Your task to perform on an android device: Search for a new perfume Image 0: 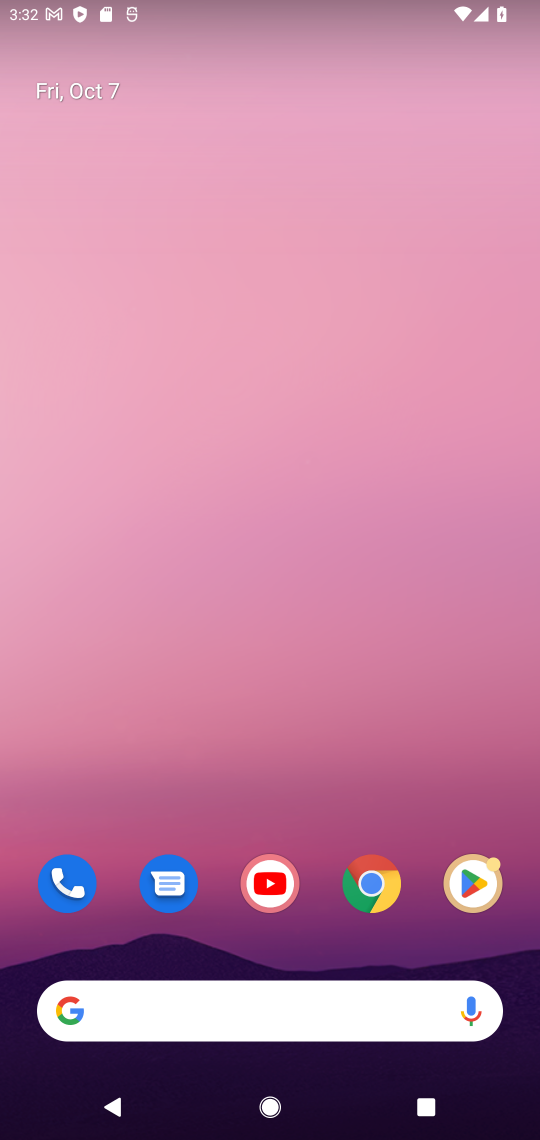
Step 0: click (371, 870)
Your task to perform on an android device: Search for a new perfume Image 1: 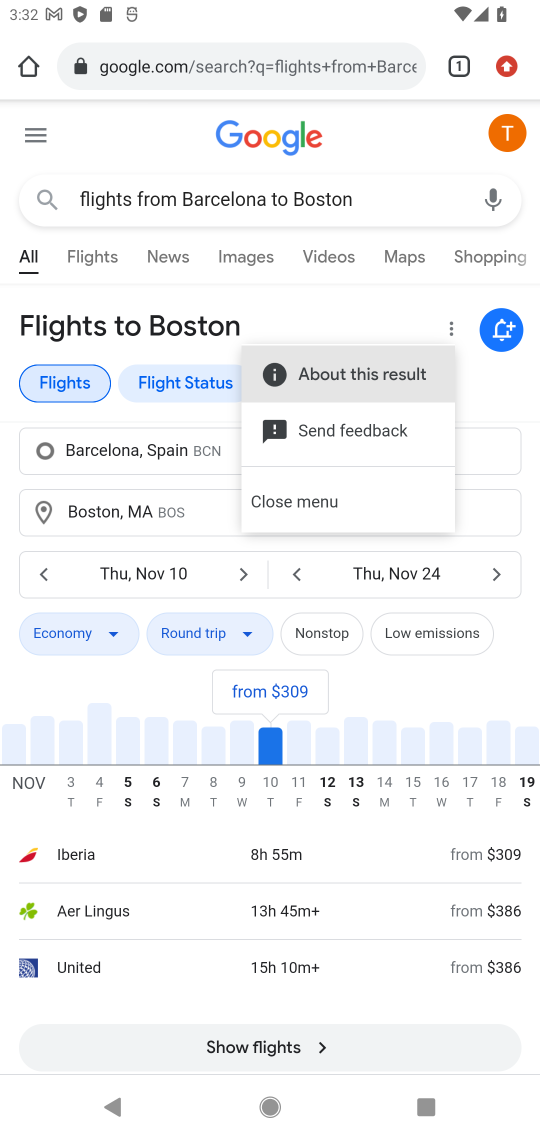
Step 1: click (378, 197)
Your task to perform on an android device: Search for a new perfume Image 2: 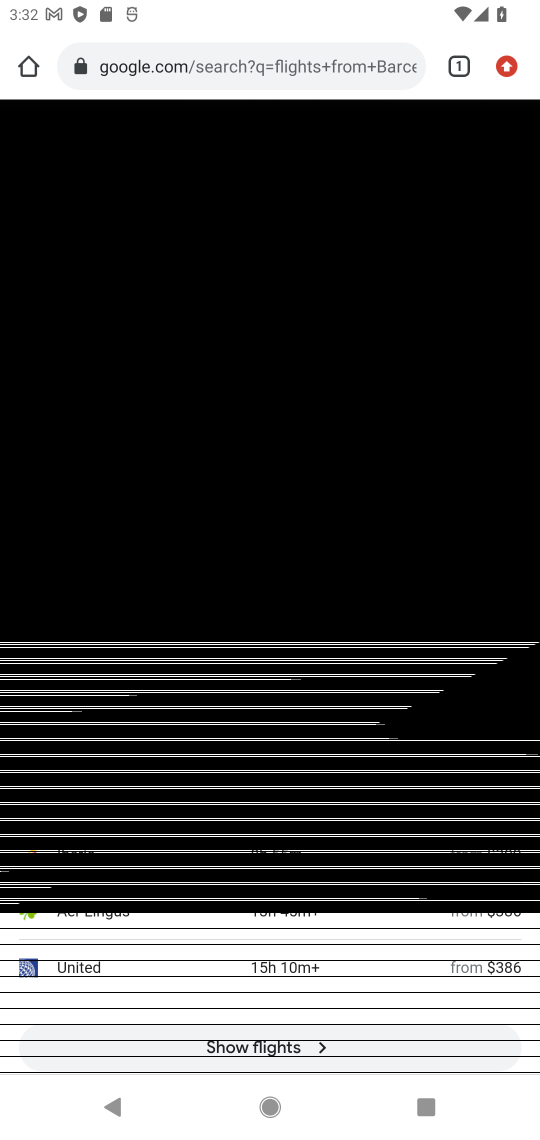
Step 2: click (307, 71)
Your task to perform on an android device: Search for a new perfume Image 3: 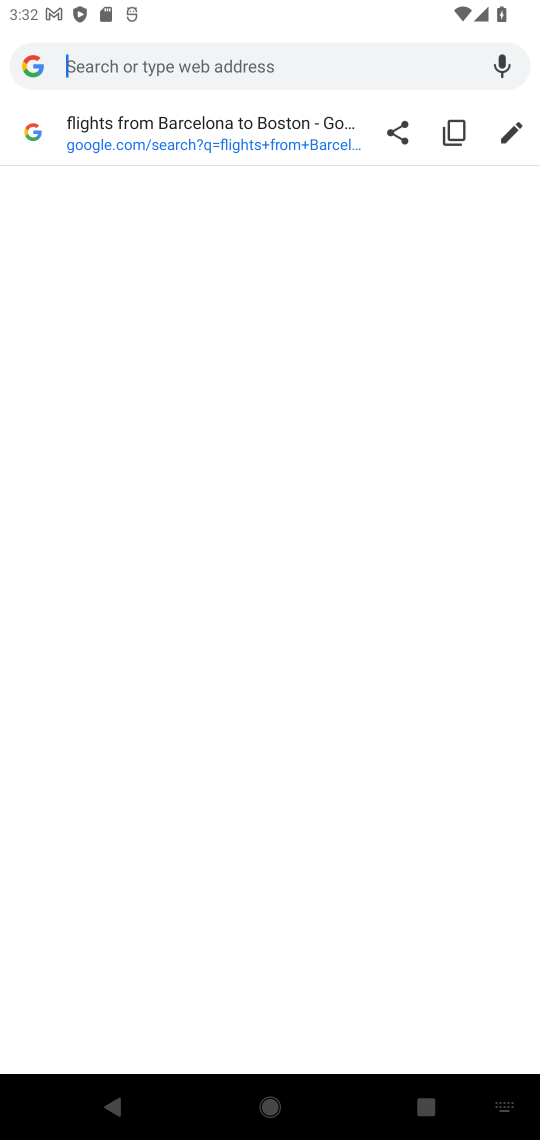
Step 3: type "new perfume"
Your task to perform on an android device: Search for a new perfume Image 4: 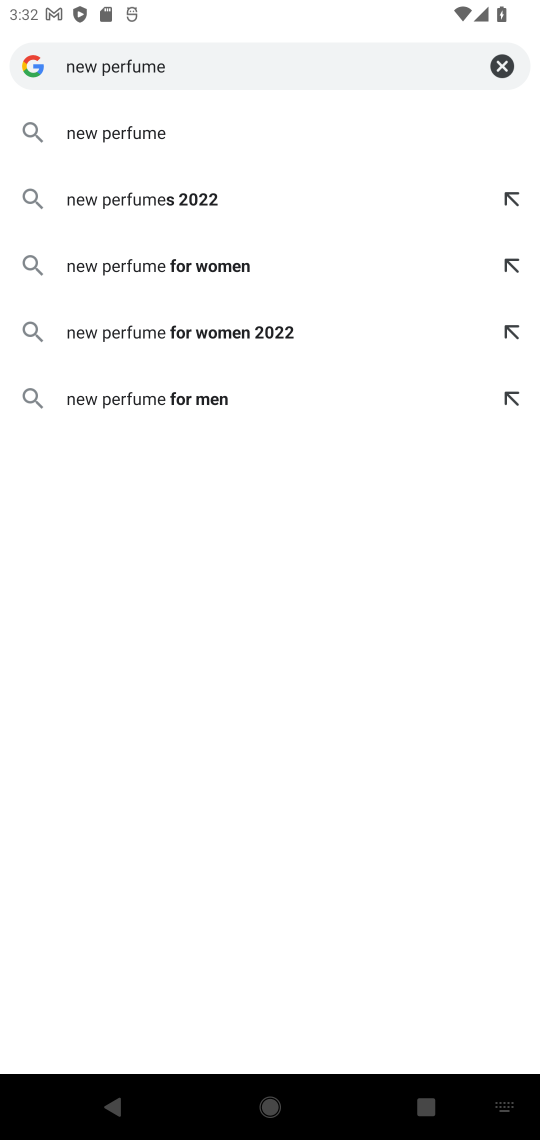
Step 4: click (133, 132)
Your task to perform on an android device: Search for a new perfume Image 5: 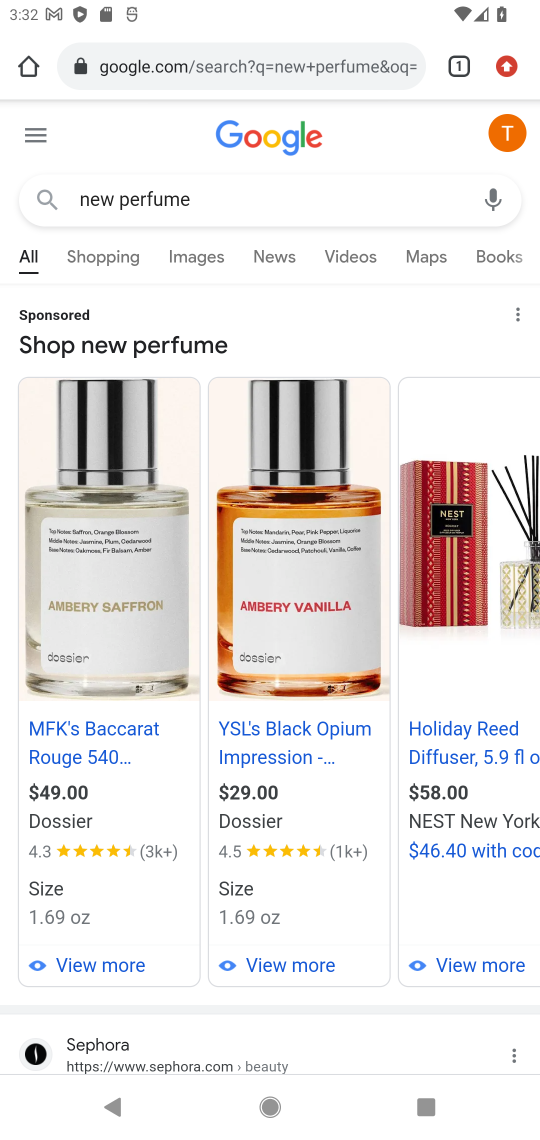
Step 5: task complete